Your task to perform on an android device: Show me productivity apps on the Play Store Image 0: 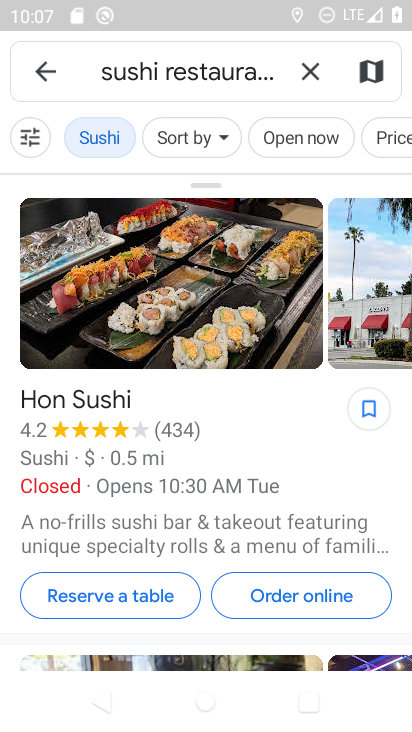
Step 0: press home button
Your task to perform on an android device: Show me productivity apps on the Play Store Image 1: 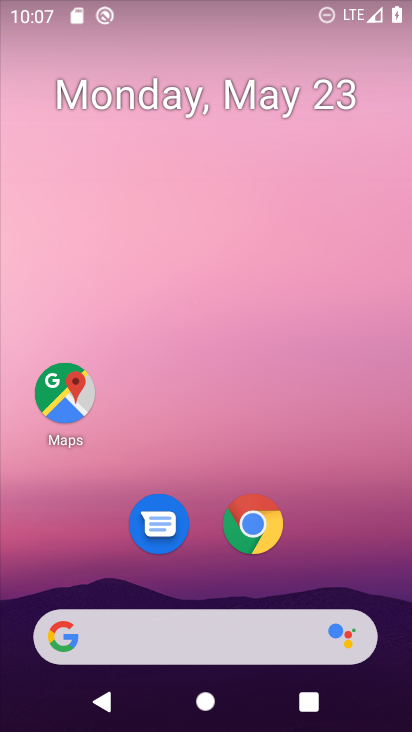
Step 1: drag from (209, 419) to (293, 18)
Your task to perform on an android device: Show me productivity apps on the Play Store Image 2: 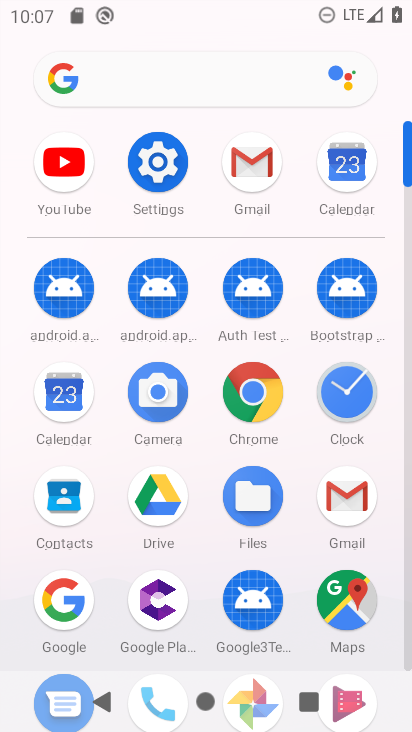
Step 2: drag from (210, 343) to (229, 119)
Your task to perform on an android device: Show me productivity apps on the Play Store Image 3: 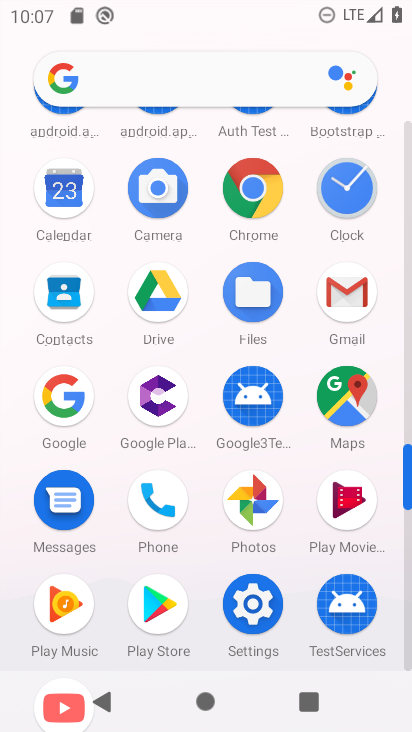
Step 3: click (159, 584)
Your task to perform on an android device: Show me productivity apps on the Play Store Image 4: 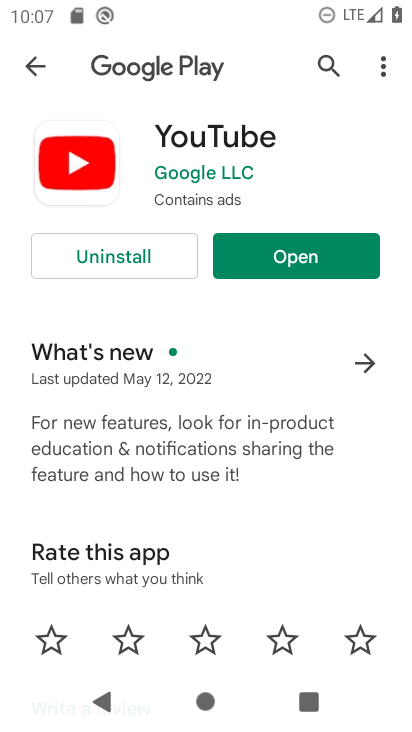
Step 4: drag from (267, 527) to (308, 619)
Your task to perform on an android device: Show me productivity apps on the Play Store Image 5: 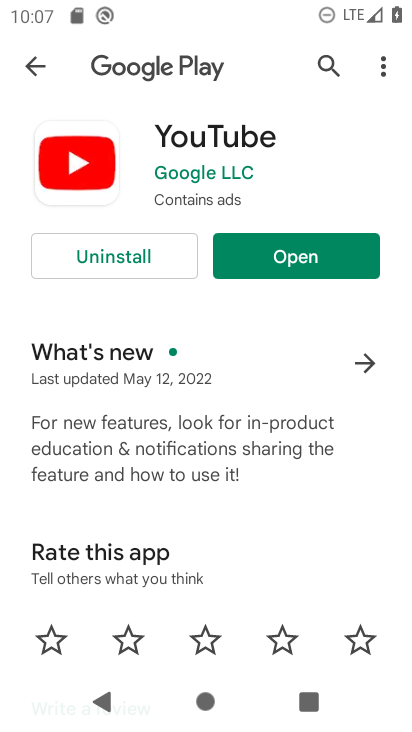
Step 5: click (301, 254)
Your task to perform on an android device: Show me productivity apps on the Play Store Image 6: 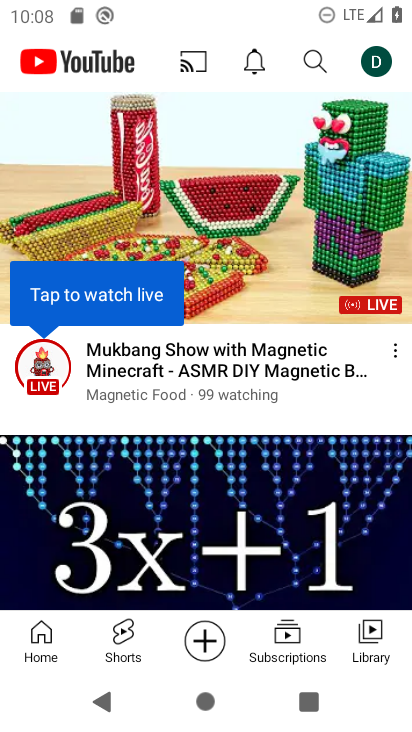
Step 6: click (45, 635)
Your task to perform on an android device: Show me productivity apps on the Play Store Image 7: 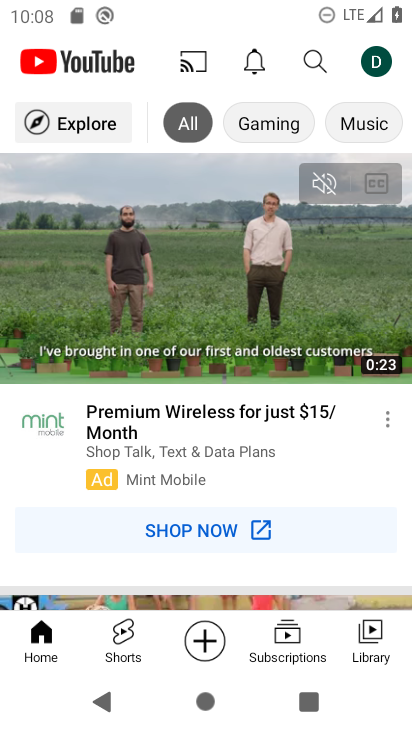
Step 7: click (86, 116)
Your task to perform on an android device: Show me productivity apps on the Play Store Image 8: 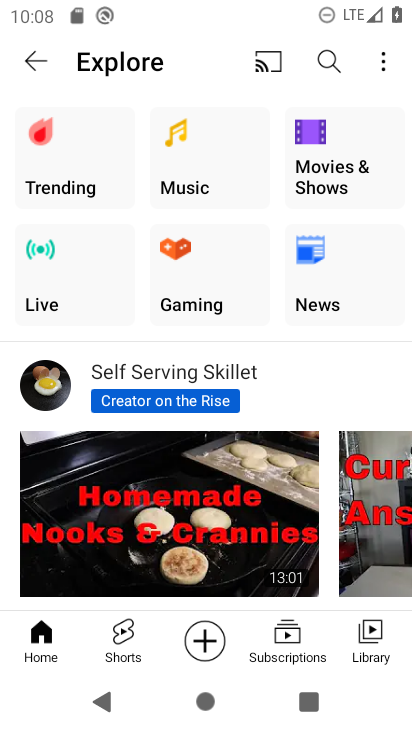
Step 8: drag from (340, 210) to (31, 260)
Your task to perform on an android device: Show me productivity apps on the Play Store Image 9: 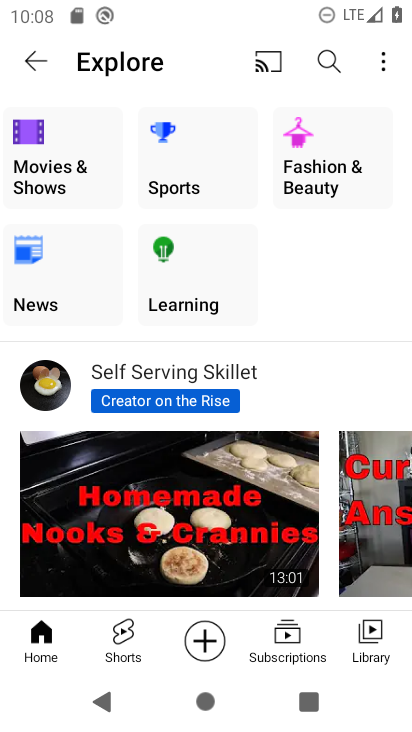
Step 9: drag from (287, 238) to (73, 284)
Your task to perform on an android device: Show me productivity apps on the Play Store Image 10: 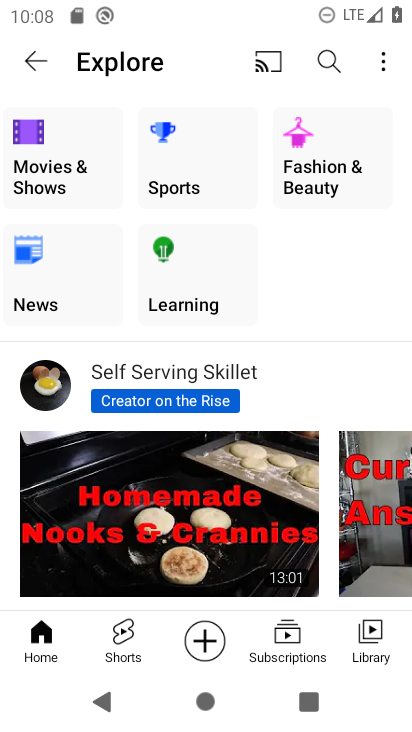
Step 10: drag from (90, 220) to (411, 206)
Your task to perform on an android device: Show me productivity apps on the Play Store Image 11: 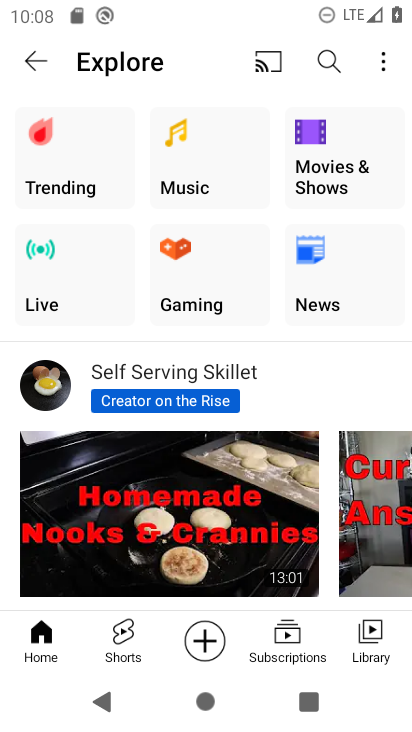
Step 11: click (327, 52)
Your task to perform on an android device: Show me productivity apps on the Play Store Image 12: 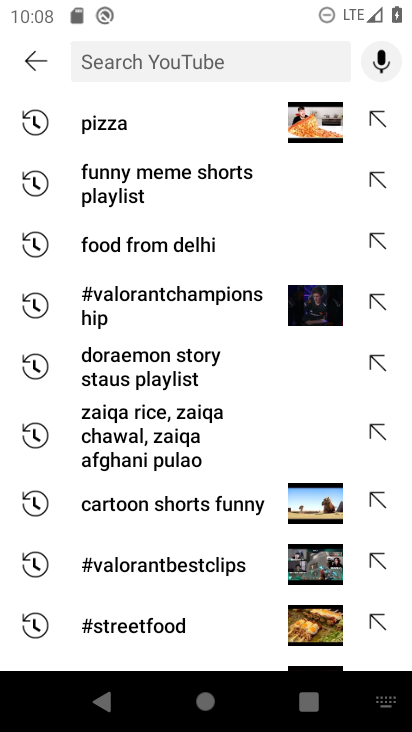
Step 12: type "productivity app"
Your task to perform on an android device: Show me productivity apps on the Play Store Image 13: 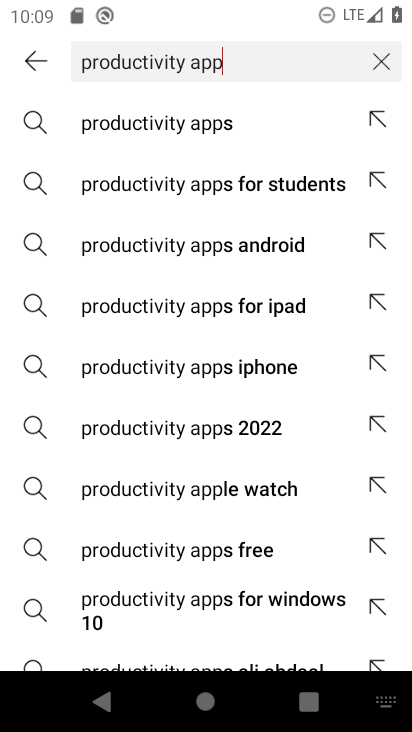
Step 13: click (172, 126)
Your task to perform on an android device: Show me productivity apps on the Play Store Image 14: 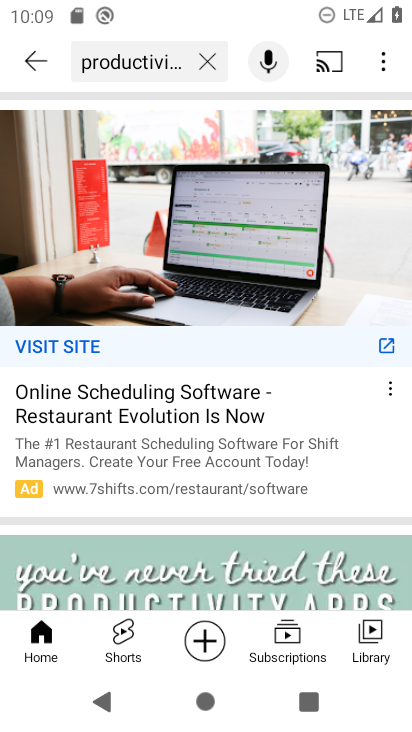
Step 14: task complete